Your task to perform on an android device: turn on notifications settings in the gmail app Image 0: 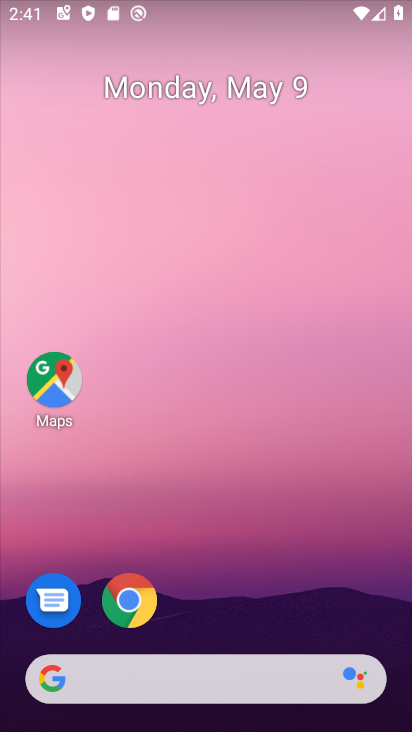
Step 0: drag from (186, 607) to (329, 15)
Your task to perform on an android device: turn on notifications settings in the gmail app Image 1: 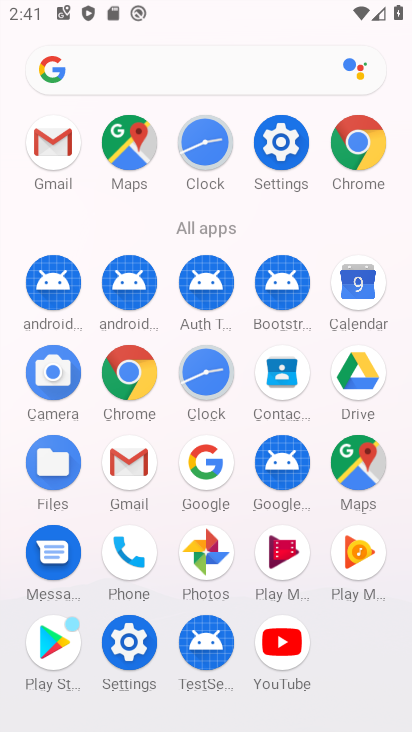
Step 1: click (50, 145)
Your task to perform on an android device: turn on notifications settings in the gmail app Image 2: 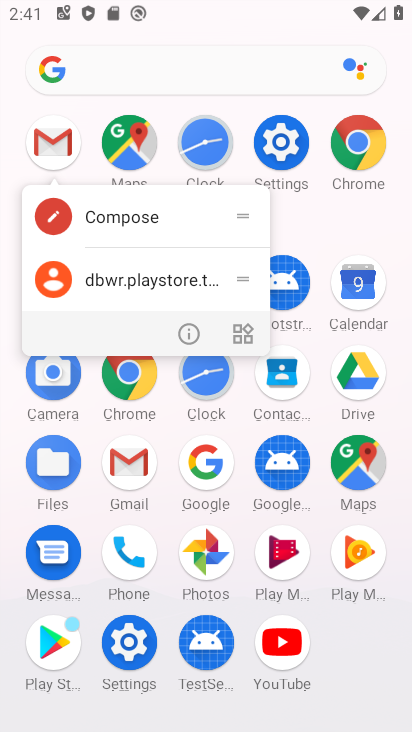
Step 2: click (184, 328)
Your task to perform on an android device: turn on notifications settings in the gmail app Image 3: 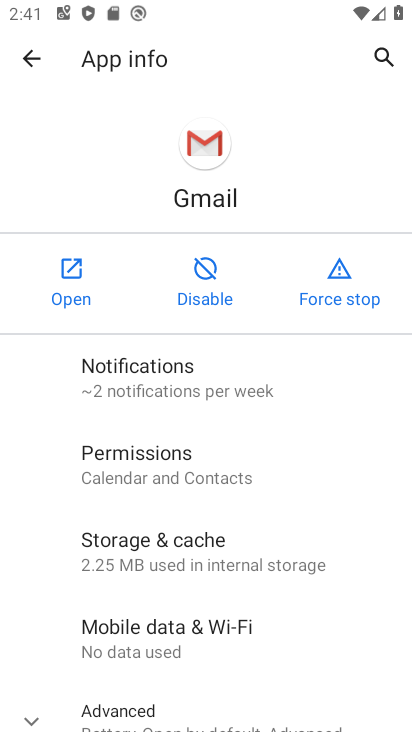
Step 3: click (181, 364)
Your task to perform on an android device: turn on notifications settings in the gmail app Image 4: 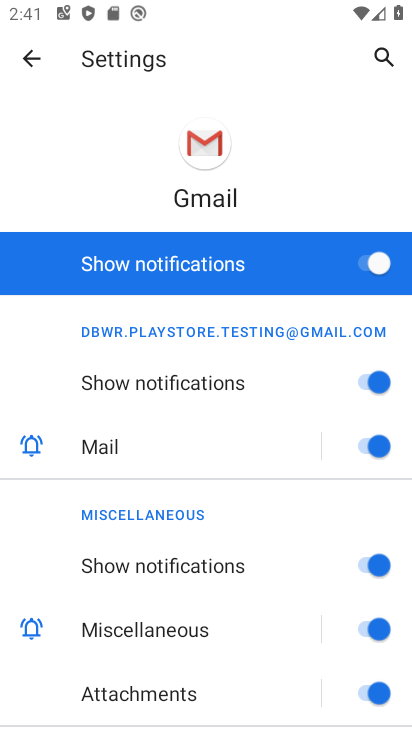
Step 4: task complete